Your task to perform on an android device: Is it going to rain today? Image 0: 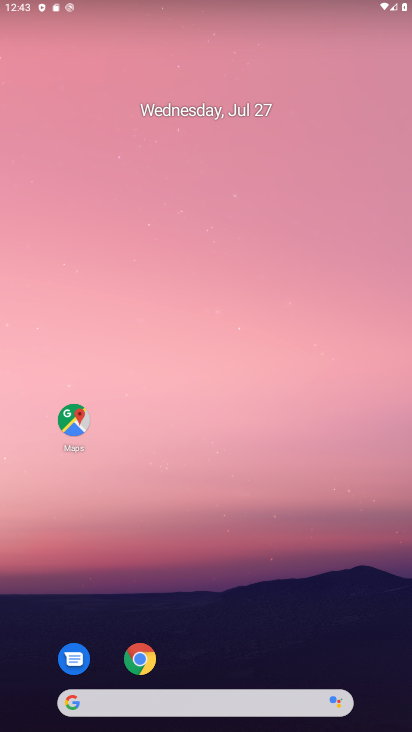
Step 0: click (264, 62)
Your task to perform on an android device: Is it going to rain today? Image 1: 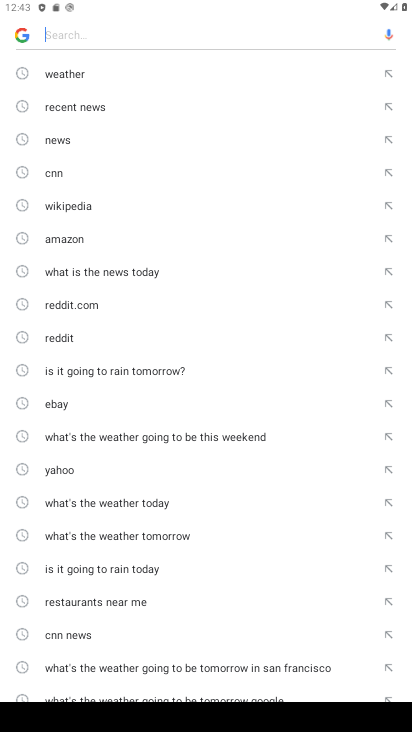
Step 1: press home button
Your task to perform on an android device: Is it going to rain today? Image 2: 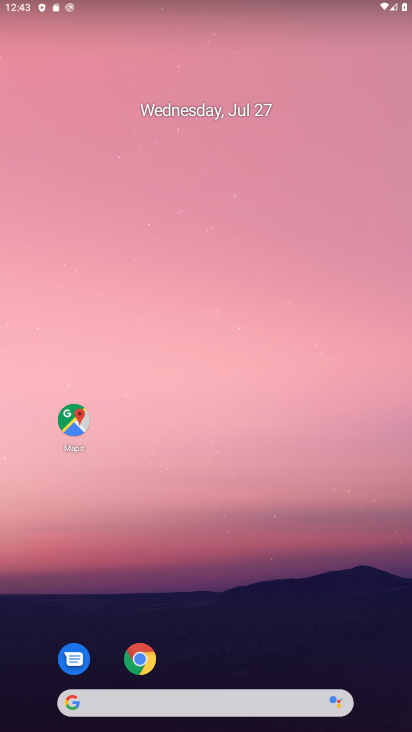
Step 2: drag from (281, 623) to (224, 24)
Your task to perform on an android device: Is it going to rain today? Image 3: 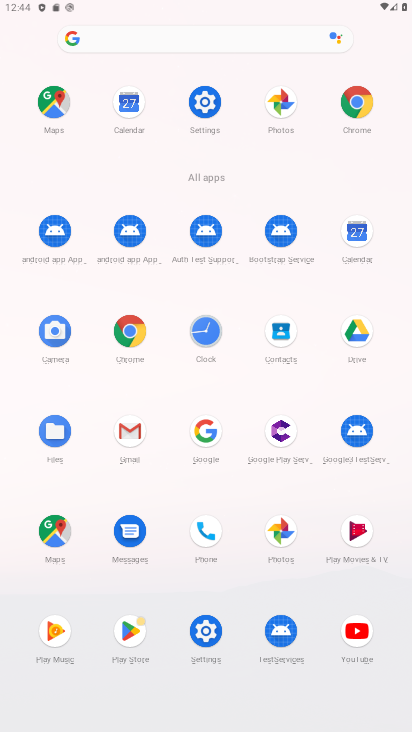
Step 3: click (356, 97)
Your task to perform on an android device: Is it going to rain today? Image 4: 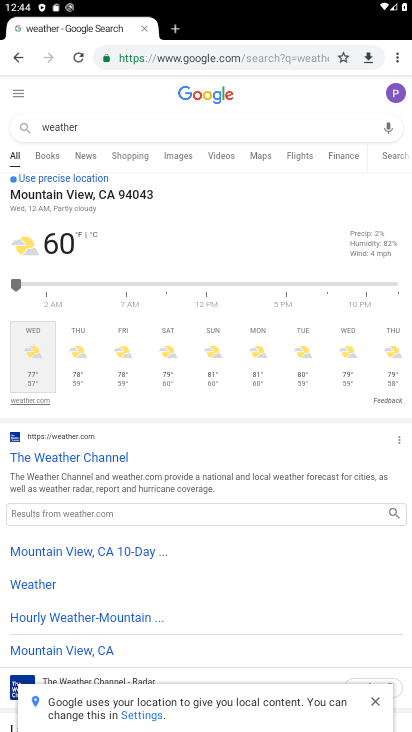
Step 4: click (245, 56)
Your task to perform on an android device: Is it going to rain today? Image 5: 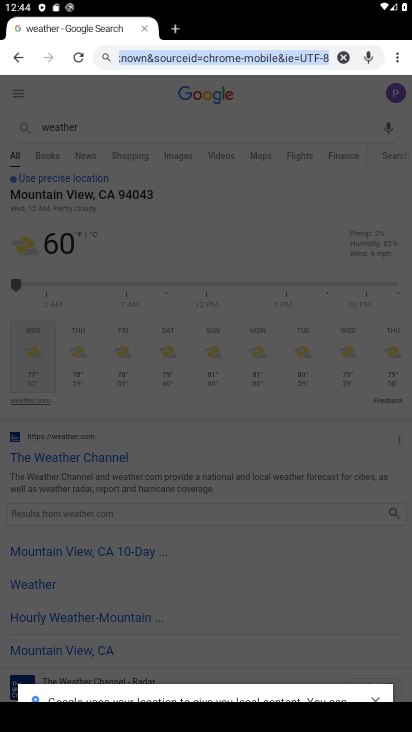
Step 5: click (257, 209)
Your task to perform on an android device: Is it going to rain today? Image 6: 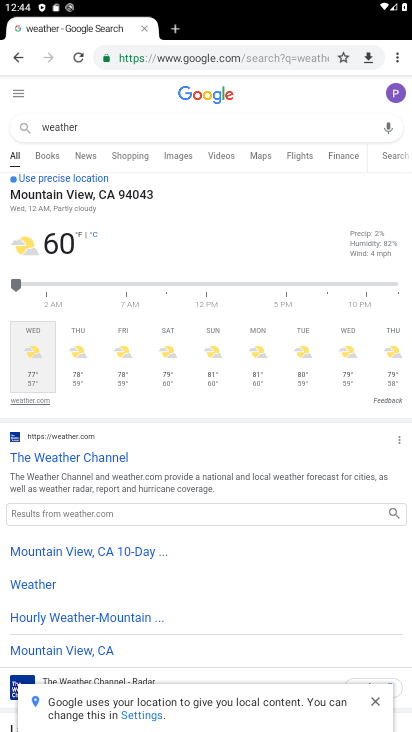
Step 6: task complete